Your task to perform on an android device: turn on bluetooth scan Image 0: 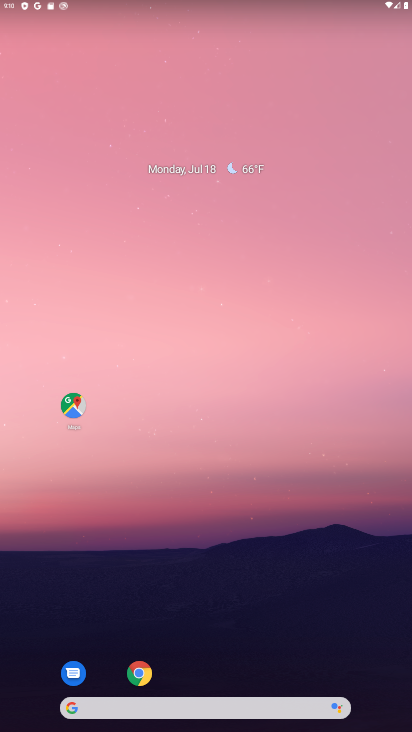
Step 0: drag from (179, 675) to (193, 109)
Your task to perform on an android device: turn on bluetooth scan Image 1: 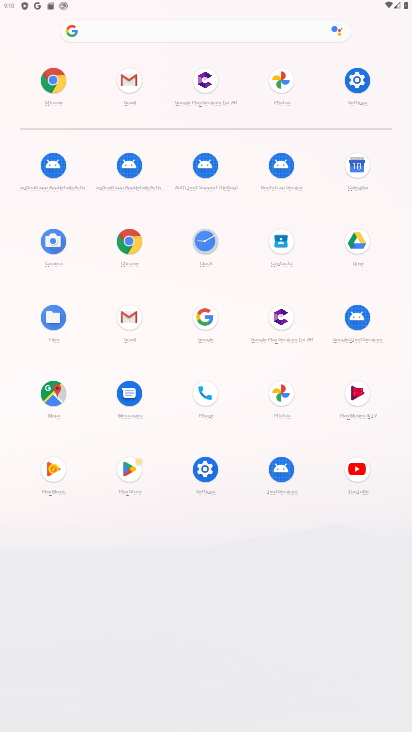
Step 1: click (361, 83)
Your task to perform on an android device: turn on bluetooth scan Image 2: 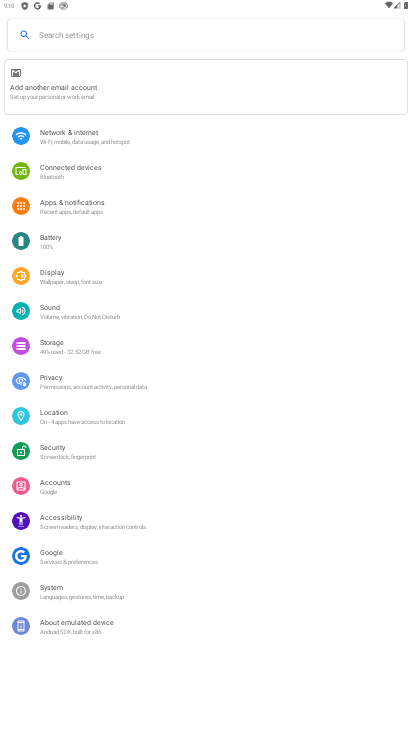
Step 2: click (74, 414)
Your task to perform on an android device: turn on bluetooth scan Image 3: 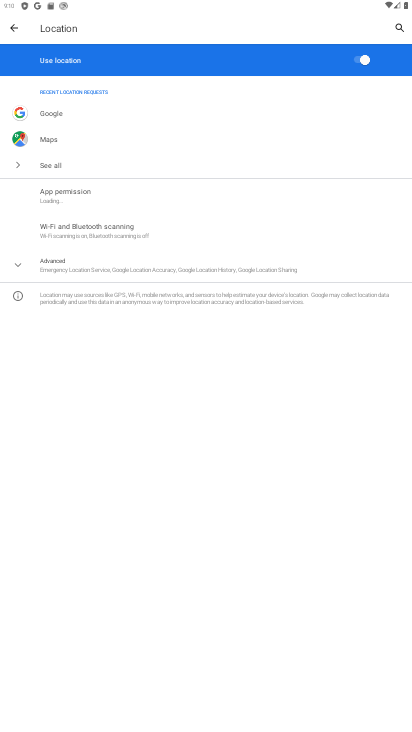
Step 3: click (111, 231)
Your task to perform on an android device: turn on bluetooth scan Image 4: 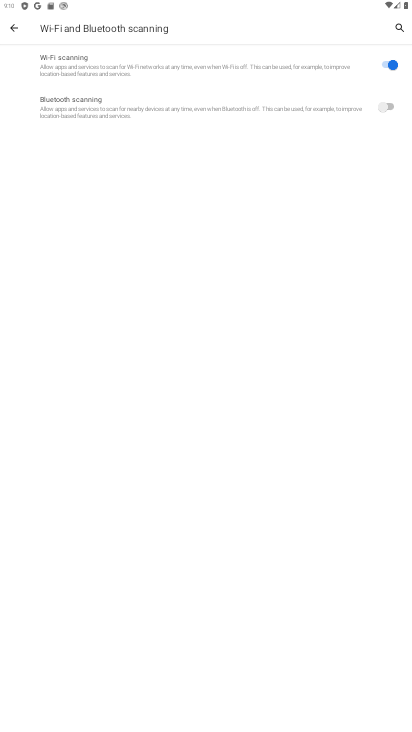
Step 4: click (389, 105)
Your task to perform on an android device: turn on bluetooth scan Image 5: 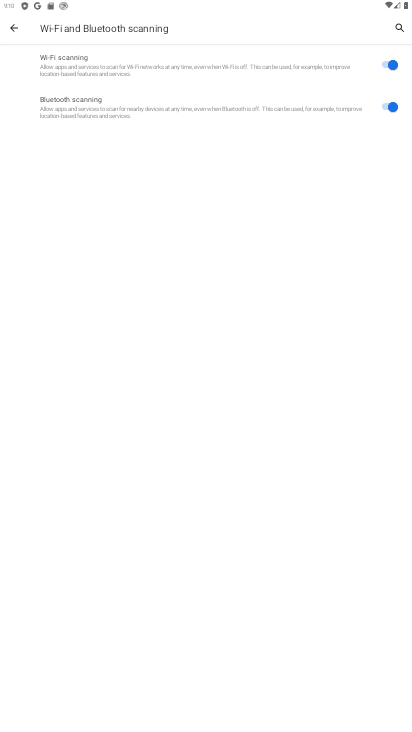
Step 5: task complete